Your task to perform on an android device: Go to Android settings Image 0: 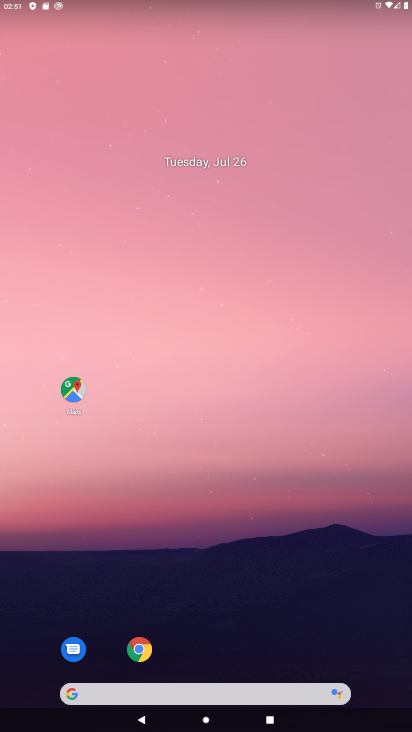
Step 0: drag from (158, 693) to (196, 218)
Your task to perform on an android device: Go to Android settings Image 1: 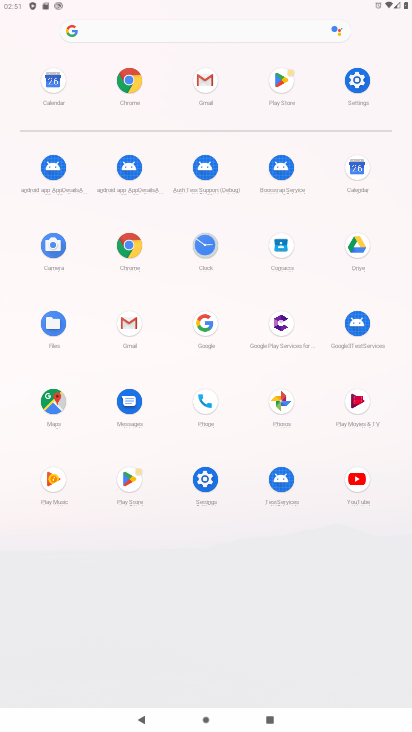
Step 1: click (358, 79)
Your task to perform on an android device: Go to Android settings Image 2: 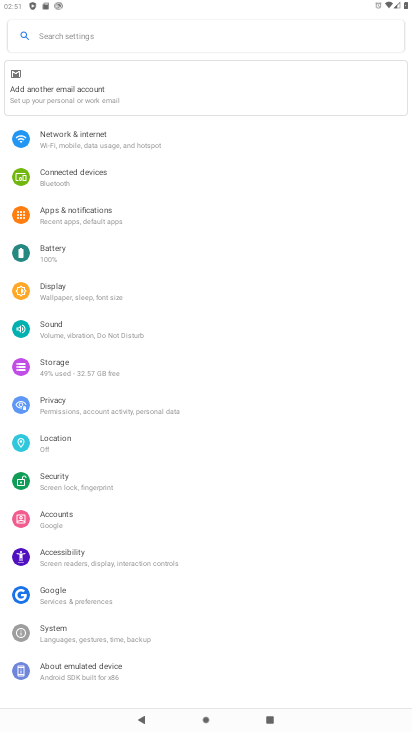
Step 2: task complete